Your task to perform on an android device: show emergency info Image 0: 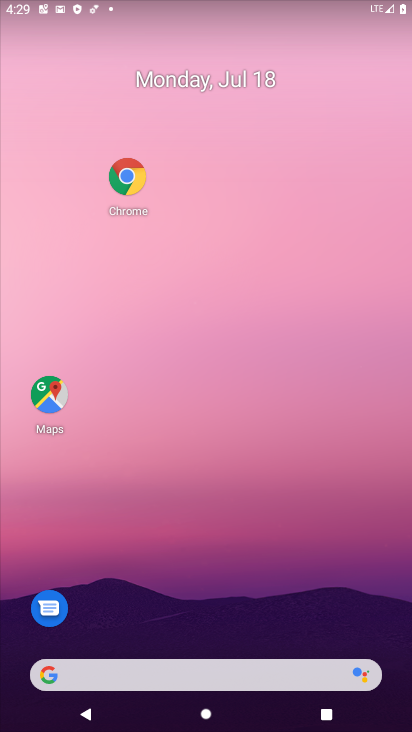
Step 0: drag from (234, 375) to (261, 95)
Your task to perform on an android device: show emergency info Image 1: 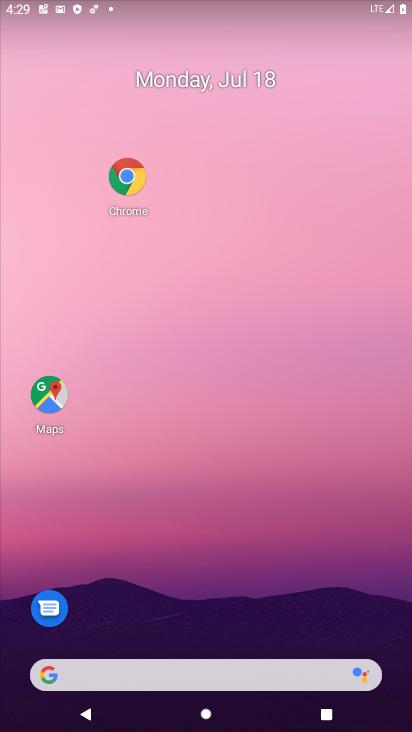
Step 1: drag from (239, 650) to (238, 59)
Your task to perform on an android device: show emergency info Image 2: 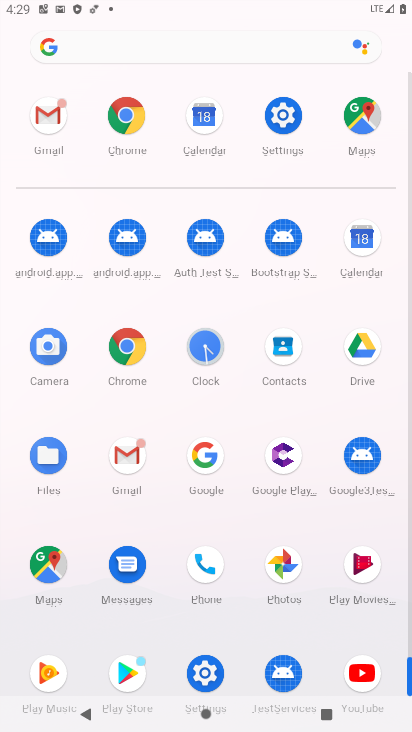
Step 2: click (283, 129)
Your task to perform on an android device: show emergency info Image 3: 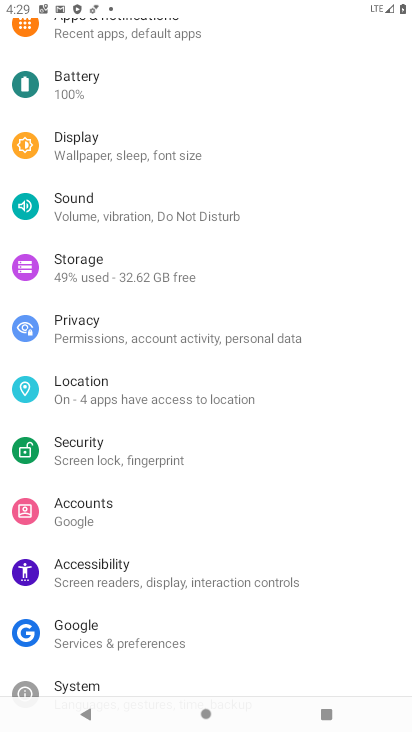
Step 3: drag from (123, 307) to (125, 559)
Your task to perform on an android device: show emergency info Image 4: 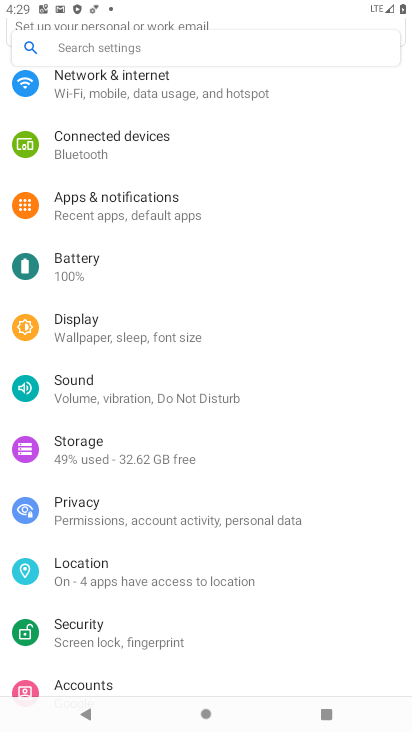
Step 4: drag from (93, 514) to (144, 43)
Your task to perform on an android device: show emergency info Image 5: 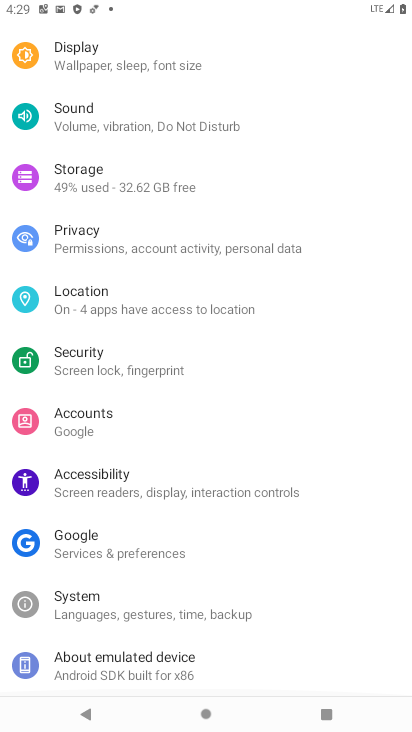
Step 5: click (143, 685)
Your task to perform on an android device: show emergency info Image 6: 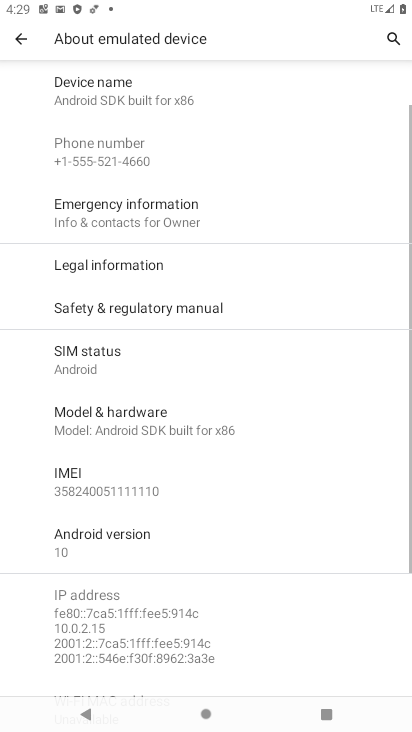
Step 6: click (132, 210)
Your task to perform on an android device: show emergency info Image 7: 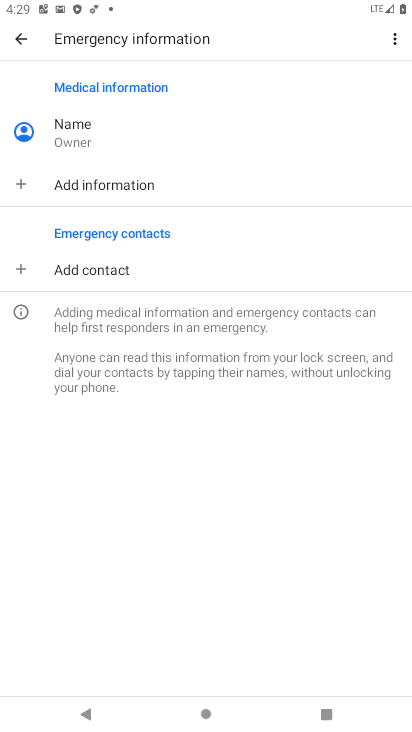
Step 7: task complete